Your task to perform on an android device: Open Google Chrome Image 0: 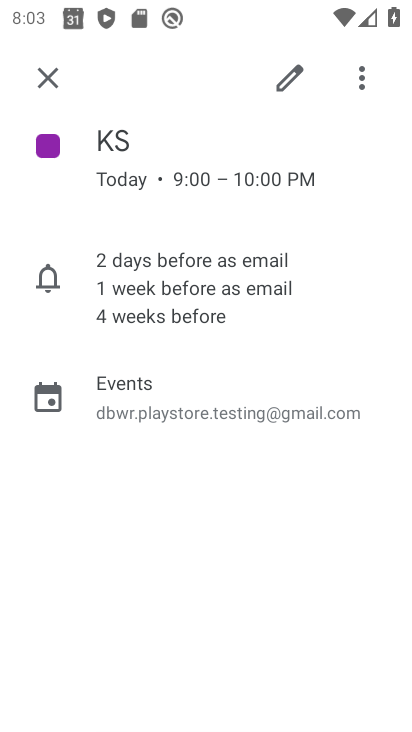
Step 0: press home button
Your task to perform on an android device: Open Google Chrome Image 1: 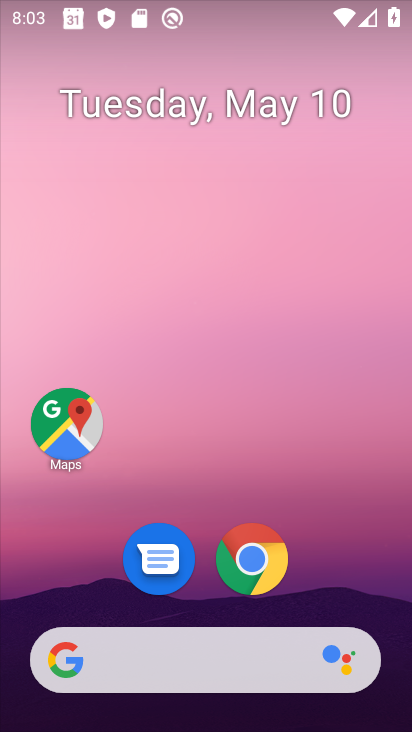
Step 1: click (243, 537)
Your task to perform on an android device: Open Google Chrome Image 2: 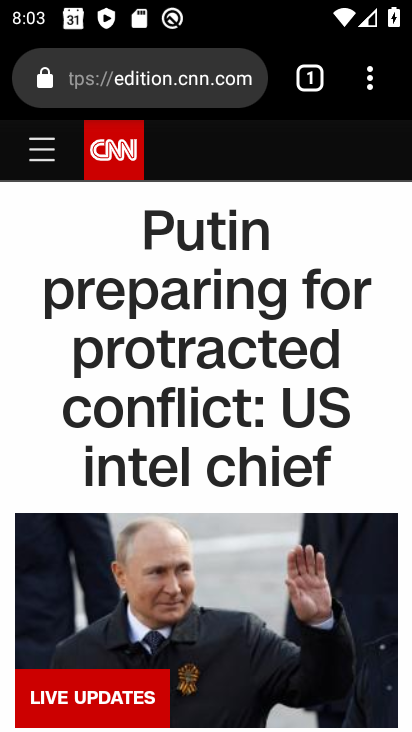
Step 2: task complete